Your task to perform on an android device: open a new tab in the chrome app Image 0: 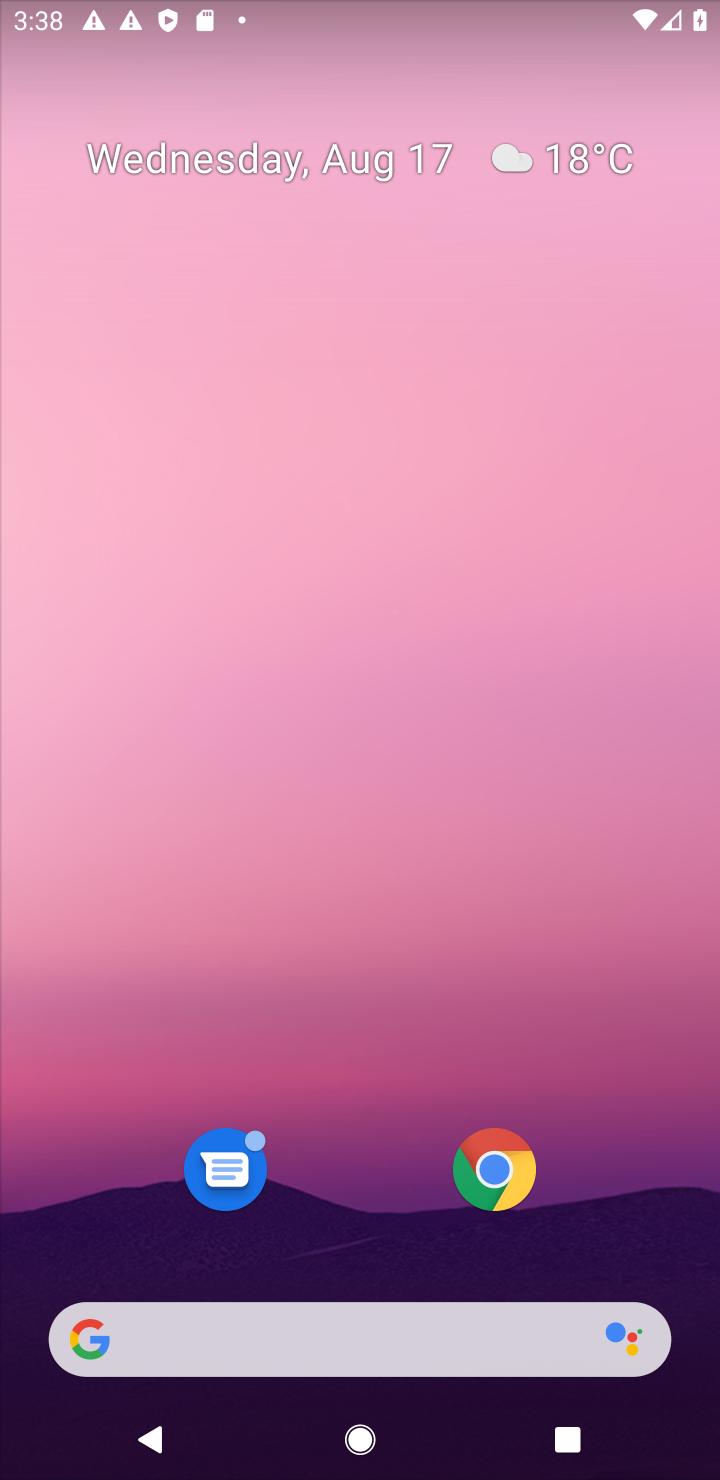
Step 0: press home button
Your task to perform on an android device: open a new tab in the chrome app Image 1: 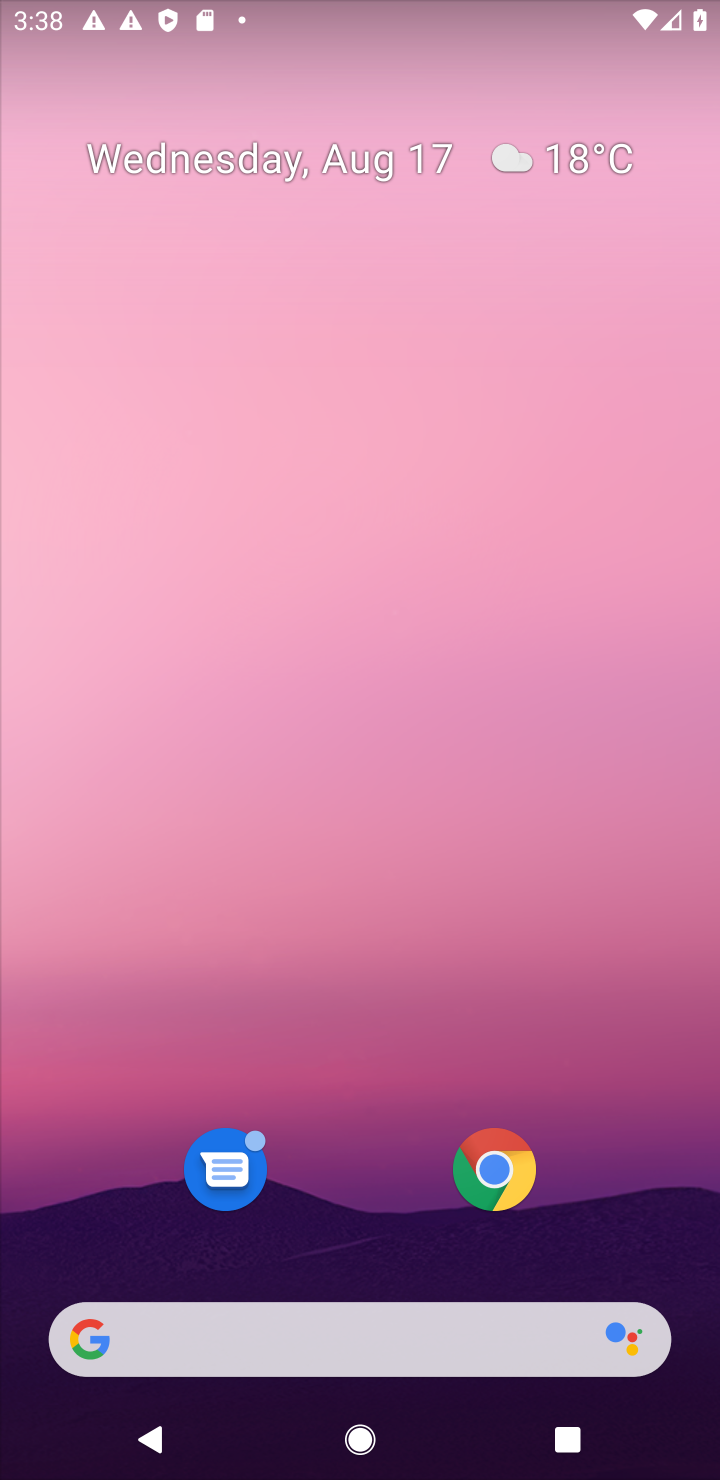
Step 1: drag from (383, 1242) to (419, 133)
Your task to perform on an android device: open a new tab in the chrome app Image 2: 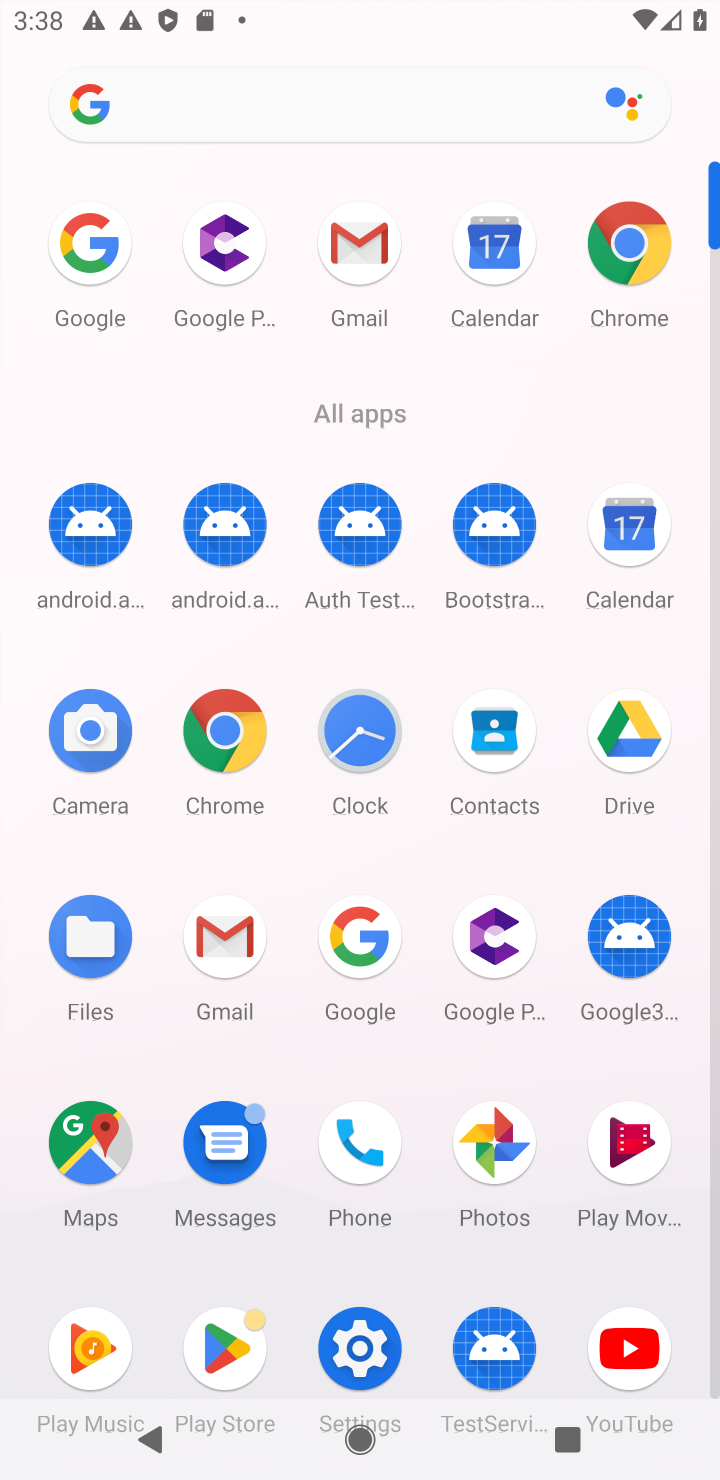
Step 2: click (226, 740)
Your task to perform on an android device: open a new tab in the chrome app Image 3: 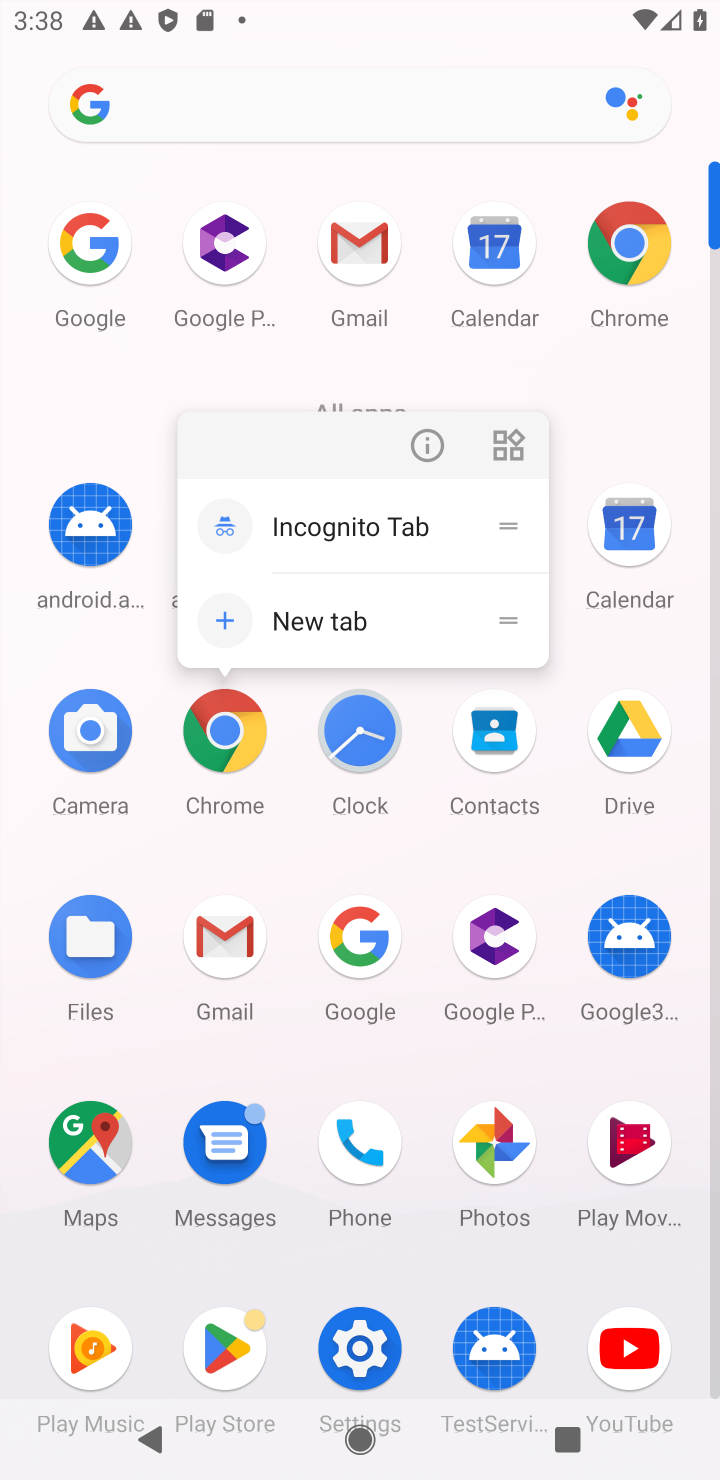
Step 3: click (229, 731)
Your task to perform on an android device: open a new tab in the chrome app Image 4: 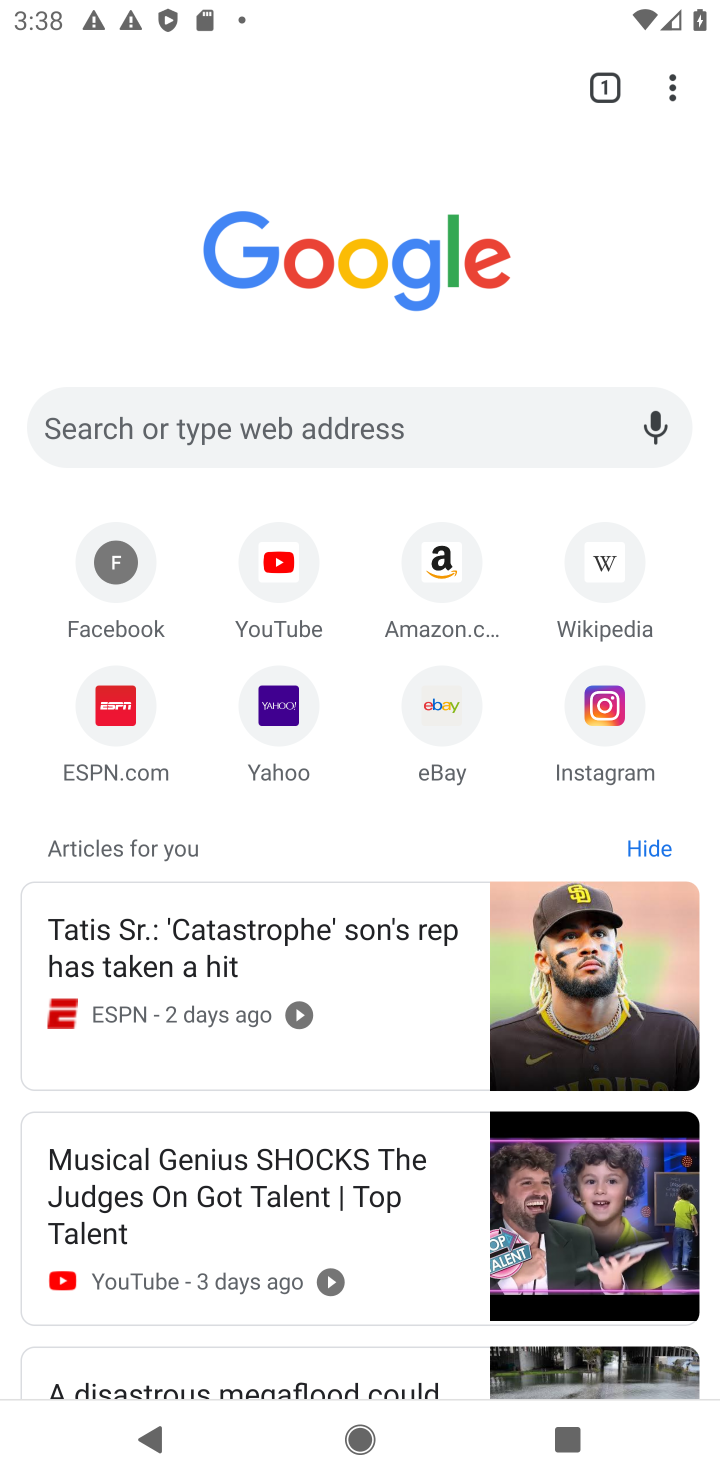
Step 4: task complete